Your task to perform on an android device: uninstall "LinkedIn" Image 0: 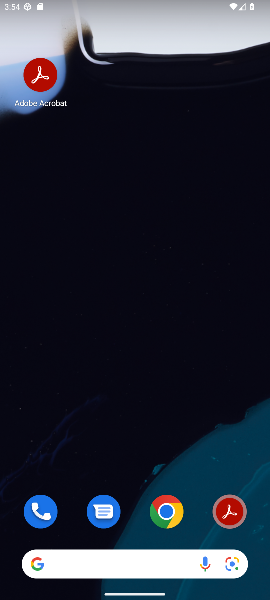
Step 0: drag from (133, 506) to (133, 193)
Your task to perform on an android device: uninstall "LinkedIn" Image 1: 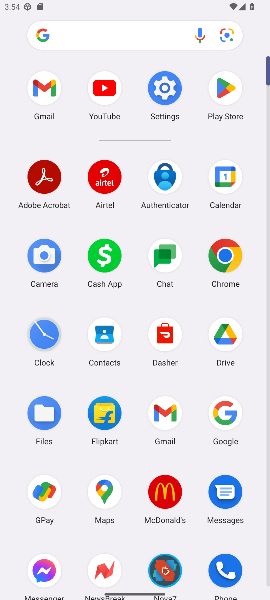
Step 1: click (213, 113)
Your task to perform on an android device: uninstall "LinkedIn" Image 2: 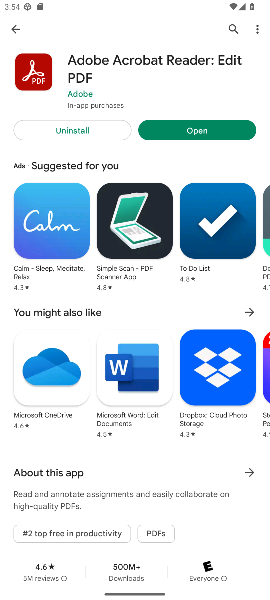
Step 2: click (213, 113)
Your task to perform on an android device: uninstall "LinkedIn" Image 3: 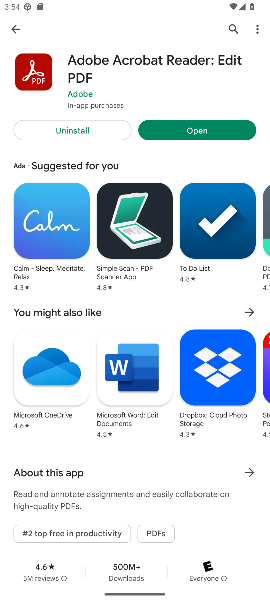
Step 3: click (12, 32)
Your task to perform on an android device: uninstall "LinkedIn" Image 4: 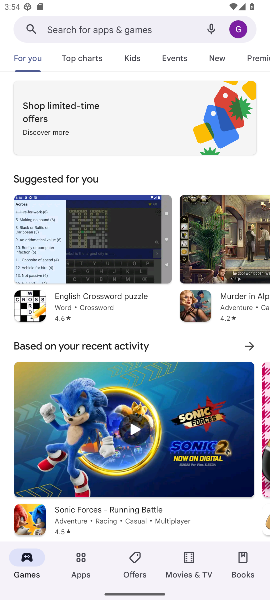
Step 4: click (121, 25)
Your task to perform on an android device: uninstall "LinkedIn" Image 5: 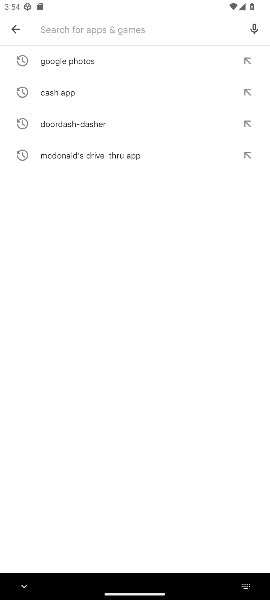
Step 5: type "LinkedIn"
Your task to perform on an android device: uninstall "LinkedIn" Image 6: 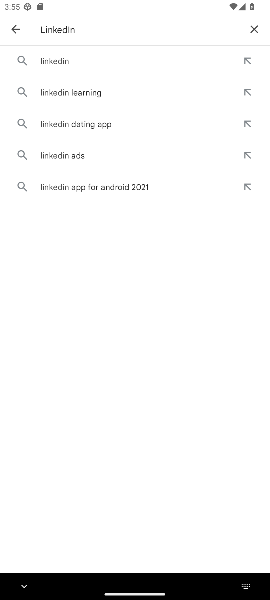
Step 6: click (45, 68)
Your task to perform on an android device: uninstall "LinkedIn" Image 7: 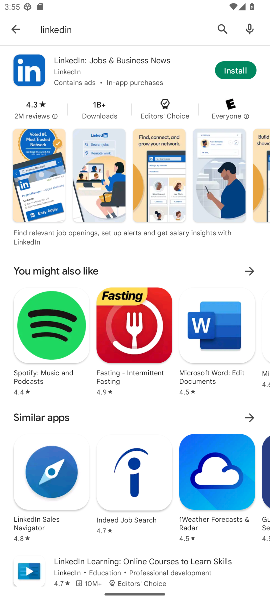
Step 7: click (215, 68)
Your task to perform on an android device: uninstall "LinkedIn" Image 8: 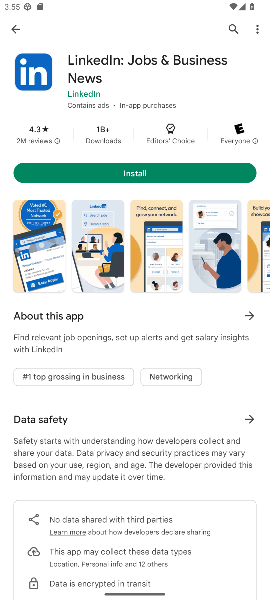
Step 8: click (130, 169)
Your task to perform on an android device: uninstall "LinkedIn" Image 9: 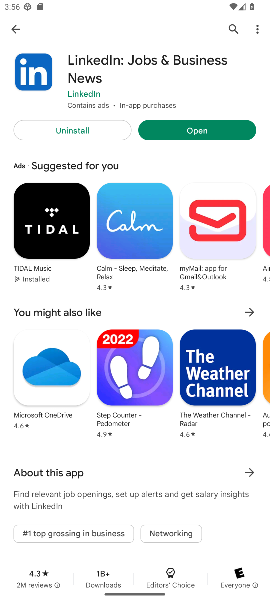
Step 9: click (195, 131)
Your task to perform on an android device: uninstall "LinkedIn" Image 10: 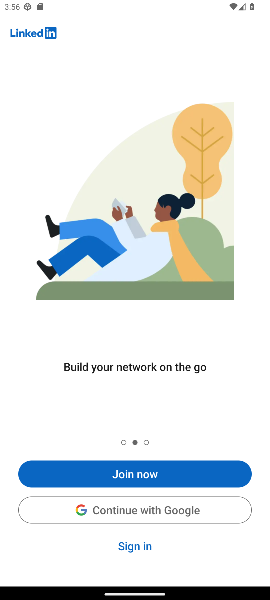
Step 10: task complete